Your task to perform on an android device: Open notification settings Image 0: 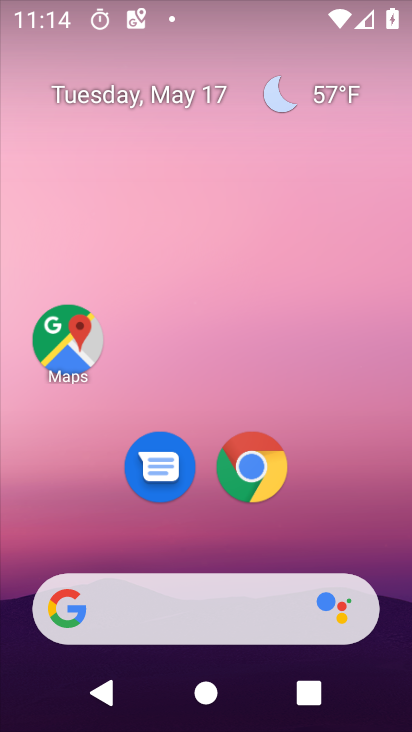
Step 0: drag from (226, 383) to (229, 151)
Your task to perform on an android device: Open notification settings Image 1: 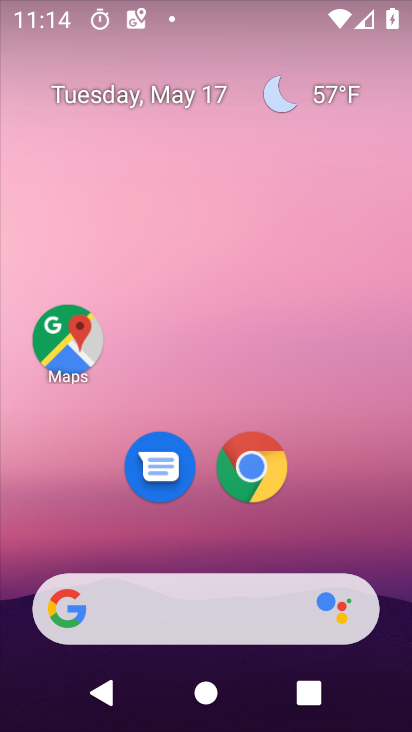
Step 1: drag from (207, 571) to (229, 198)
Your task to perform on an android device: Open notification settings Image 2: 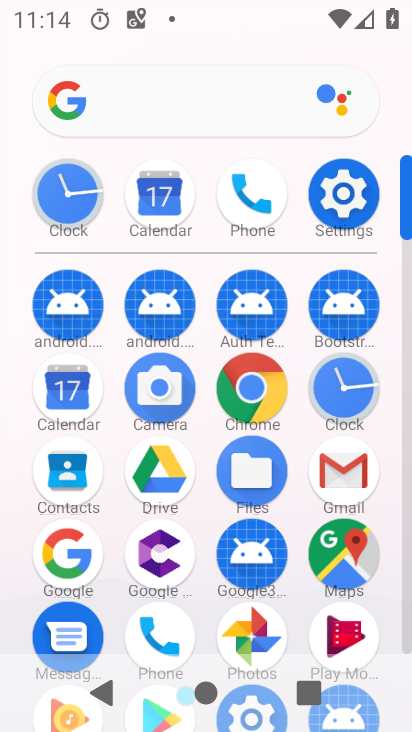
Step 2: click (353, 211)
Your task to perform on an android device: Open notification settings Image 3: 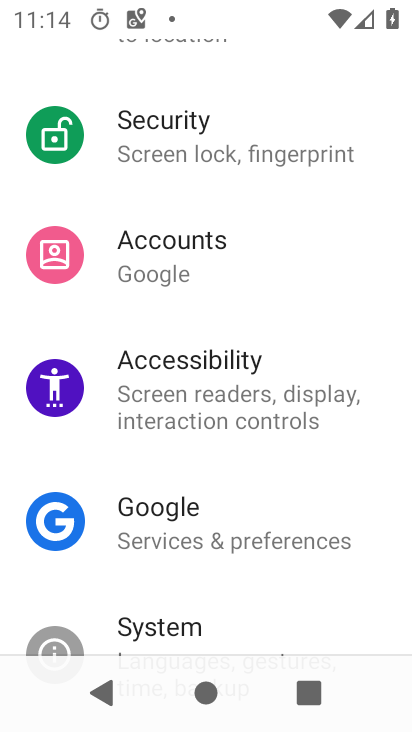
Step 3: drag from (268, 89) to (274, 475)
Your task to perform on an android device: Open notification settings Image 4: 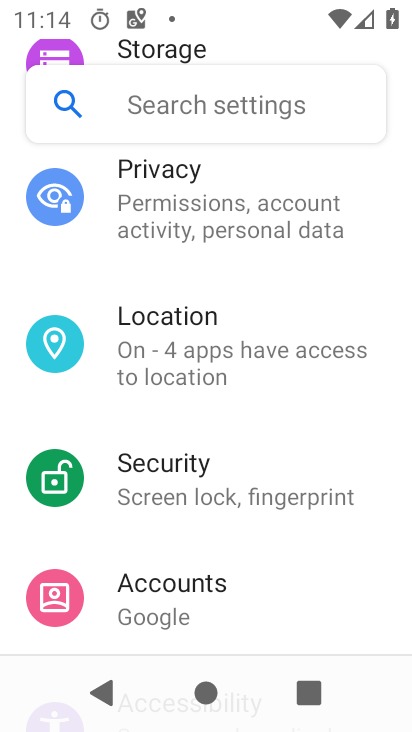
Step 4: drag from (265, 140) to (275, 554)
Your task to perform on an android device: Open notification settings Image 5: 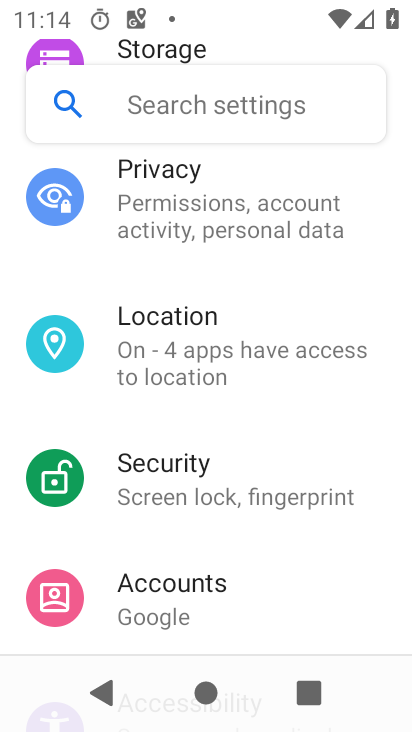
Step 5: drag from (238, 248) to (240, 538)
Your task to perform on an android device: Open notification settings Image 6: 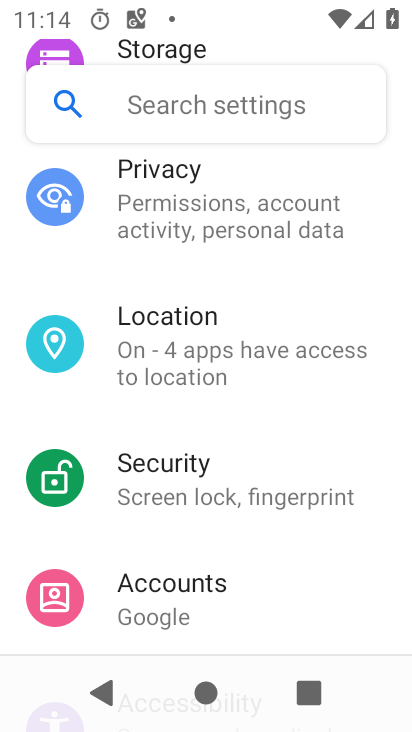
Step 6: drag from (312, 165) to (332, 542)
Your task to perform on an android device: Open notification settings Image 7: 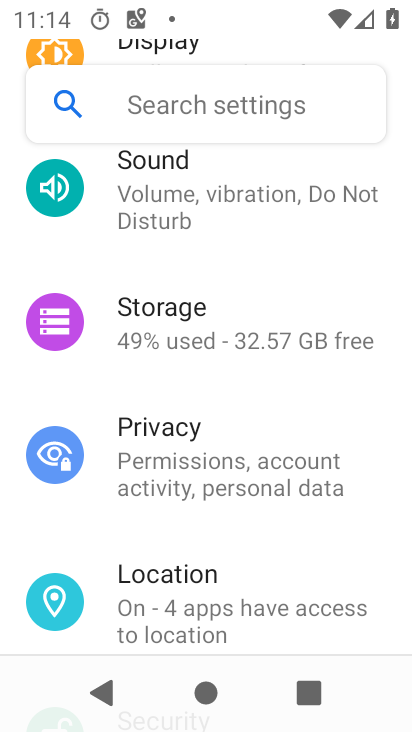
Step 7: drag from (256, 160) to (243, 551)
Your task to perform on an android device: Open notification settings Image 8: 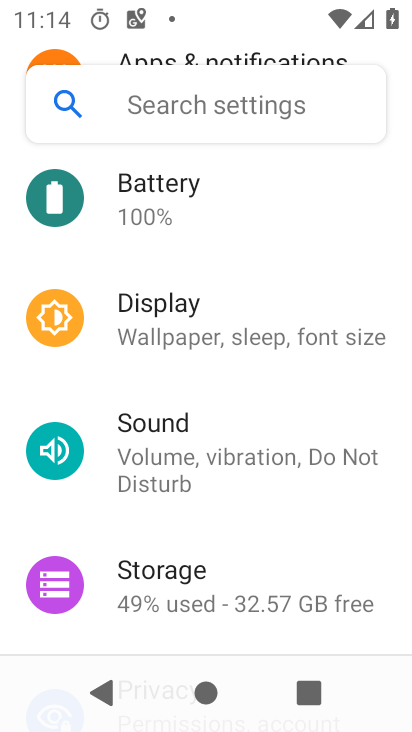
Step 8: drag from (187, 168) to (223, 559)
Your task to perform on an android device: Open notification settings Image 9: 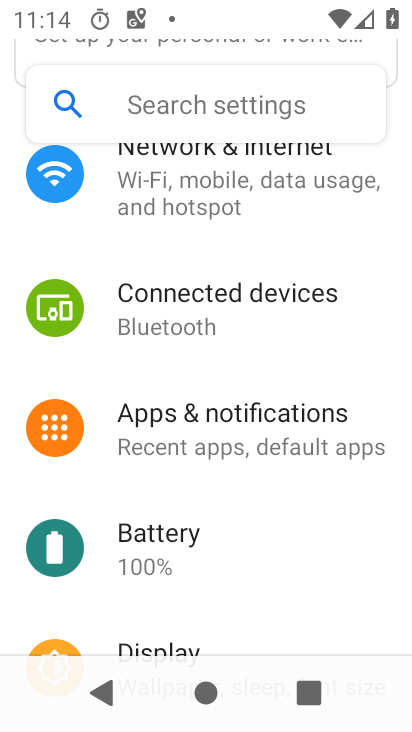
Step 9: click (179, 415)
Your task to perform on an android device: Open notification settings Image 10: 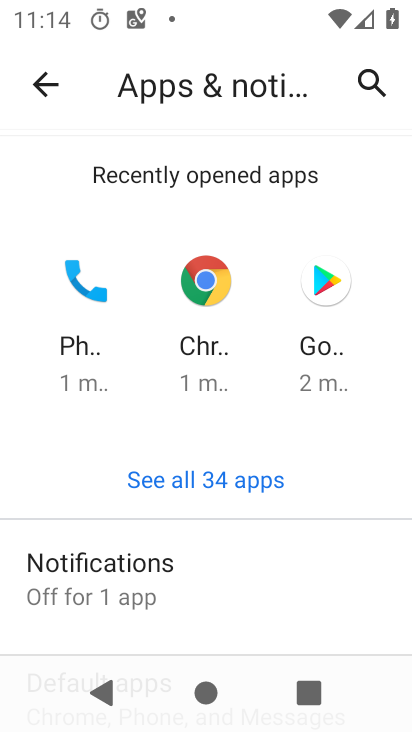
Step 10: click (121, 581)
Your task to perform on an android device: Open notification settings Image 11: 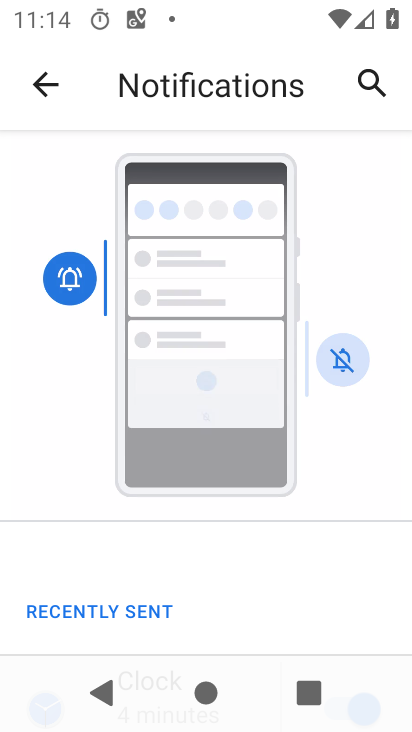
Step 11: click (31, 82)
Your task to perform on an android device: Open notification settings Image 12: 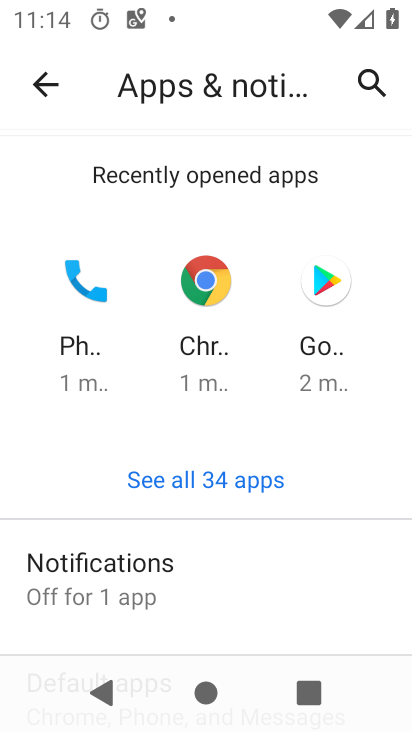
Step 12: drag from (319, 627) to (324, 194)
Your task to perform on an android device: Open notification settings Image 13: 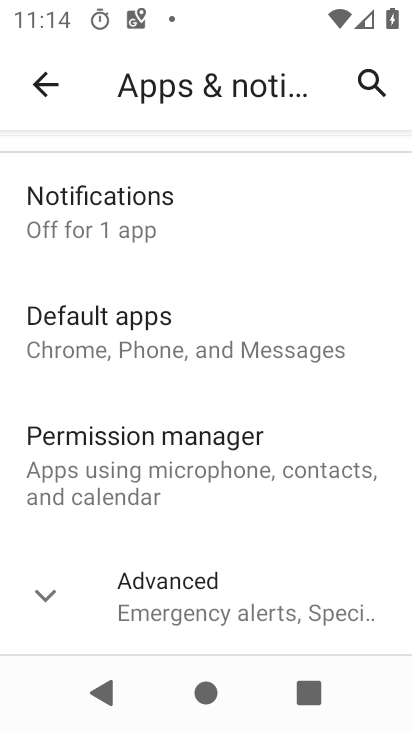
Step 13: drag from (296, 647) to (280, 202)
Your task to perform on an android device: Open notification settings Image 14: 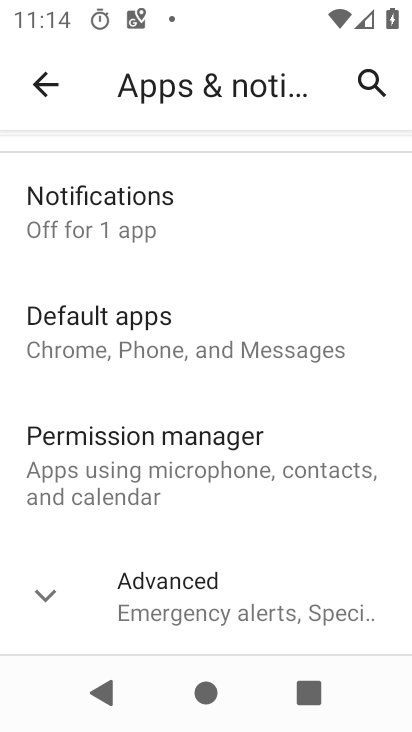
Step 14: click (195, 605)
Your task to perform on an android device: Open notification settings Image 15: 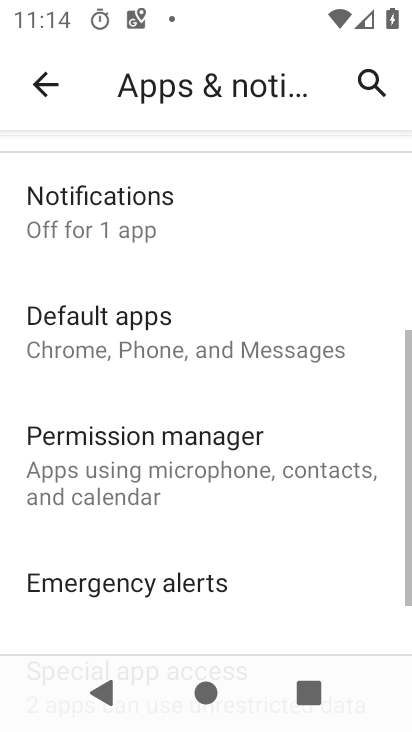
Step 15: task complete